Your task to perform on an android device: uninstall "Facebook Messenger" Image 0: 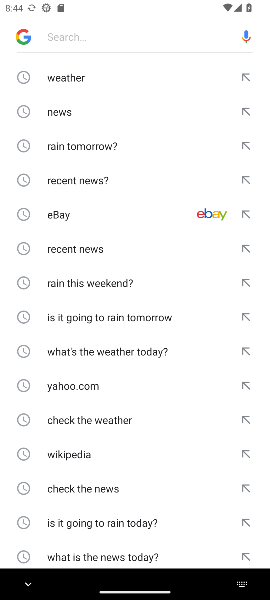
Step 0: press home button
Your task to perform on an android device: uninstall "Facebook Messenger" Image 1: 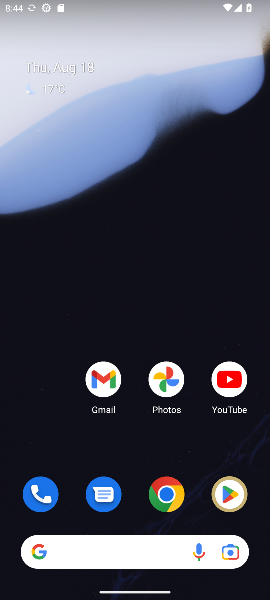
Step 1: click (230, 493)
Your task to perform on an android device: uninstall "Facebook Messenger" Image 2: 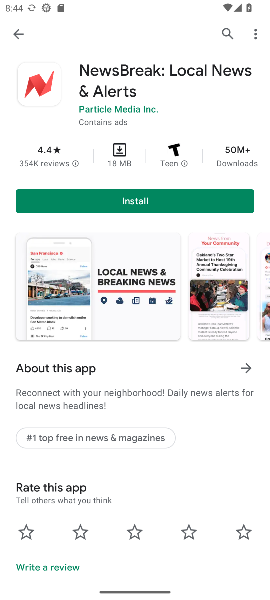
Step 2: click (222, 34)
Your task to perform on an android device: uninstall "Facebook Messenger" Image 3: 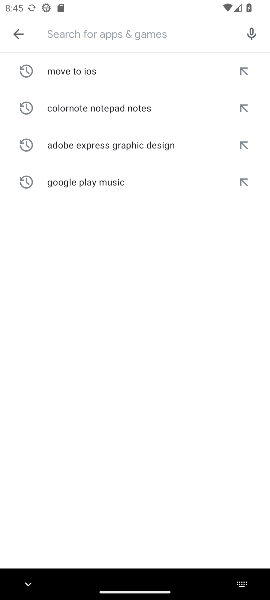
Step 3: type "Facebook Messenger"
Your task to perform on an android device: uninstall "Facebook Messenger" Image 4: 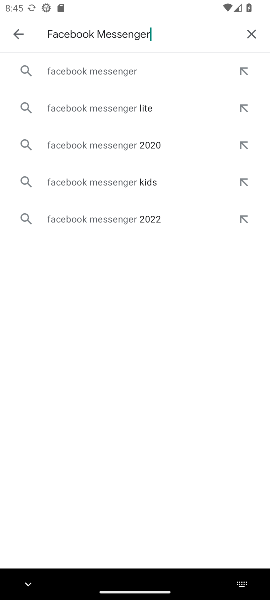
Step 4: click (76, 58)
Your task to perform on an android device: uninstall "Facebook Messenger" Image 5: 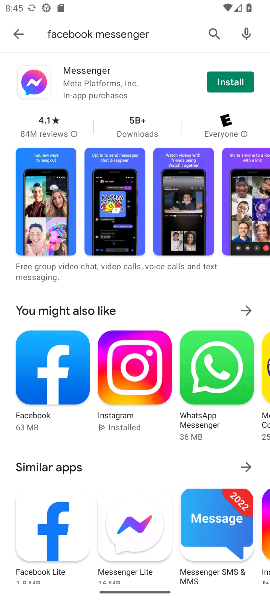
Step 5: task complete